Your task to perform on an android device: Do I have any events today? Image 0: 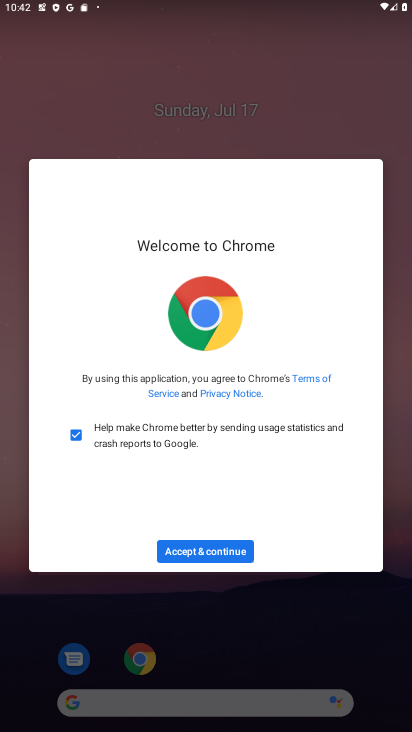
Step 0: press home button
Your task to perform on an android device: Do I have any events today? Image 1: 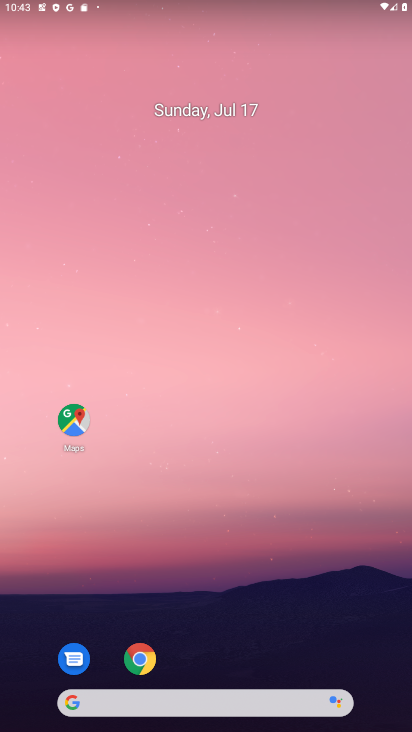
Step 1: click (174, 109)
Your task to perform on an android device: Do I have any events today? Image 2: 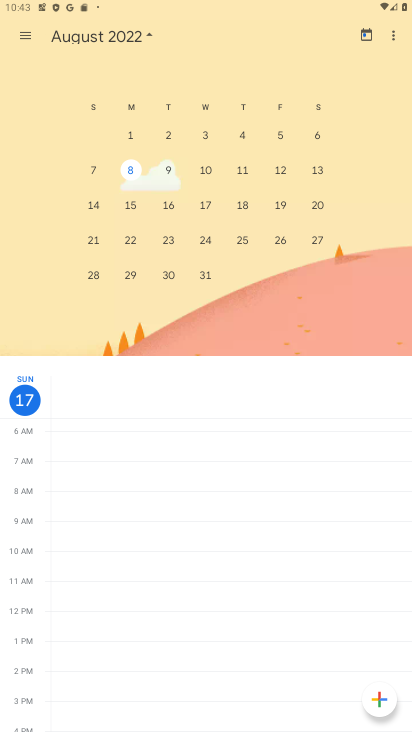
Step 2: click (22, 39)
Your task to perform on an android device: Do I have any events today? Image 3: 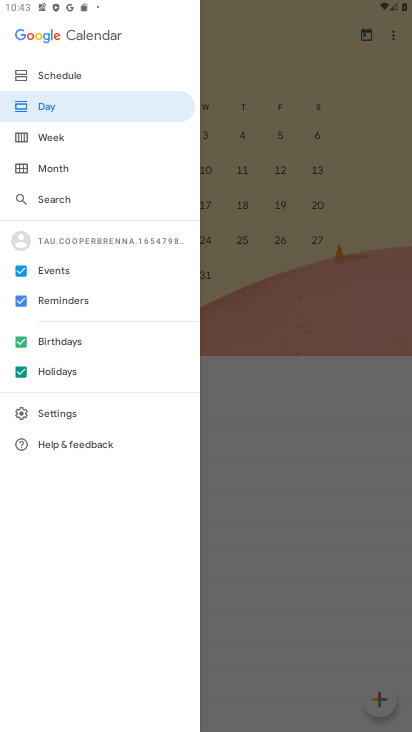
Step 3: click (352, 309)
Your task to perform on an android device: Do I have any events today? Image 4: 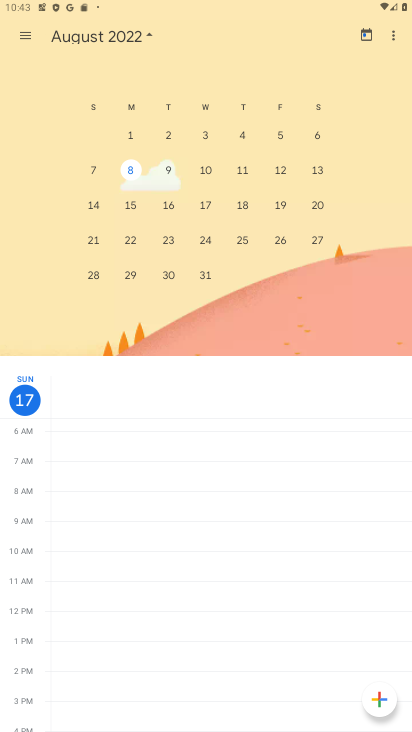
Step 4: task complete